Your task to perform on an android device: Go to Android settings Image 0: 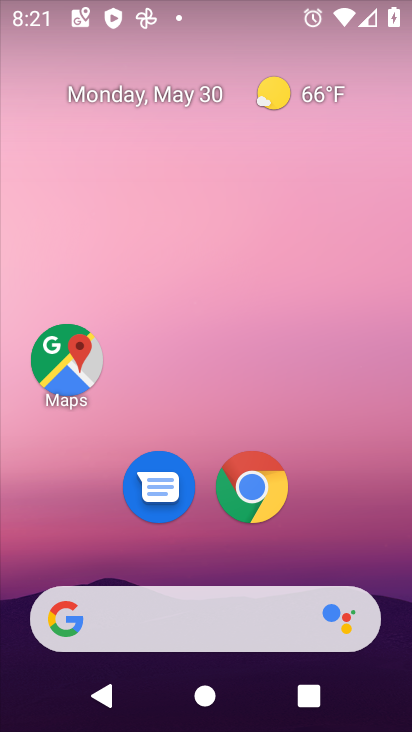
Step 0: press home button
Your task to perform on an android device: Go to Android settings Image 1: 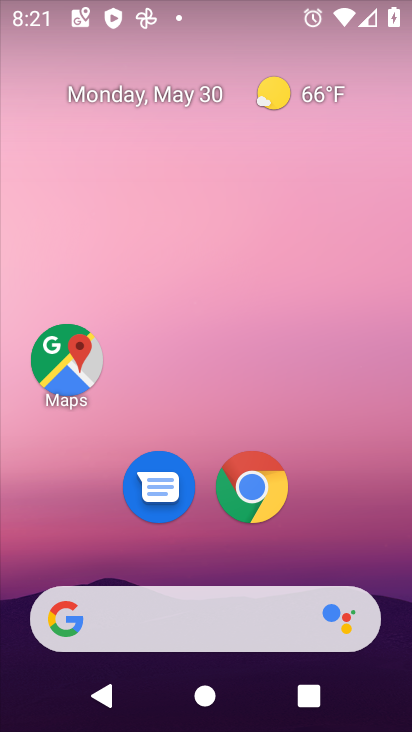
Step 1: drag from (346, 538) to (343, 0)
Your task to perform on an android device: Go to Android settings Image 2: 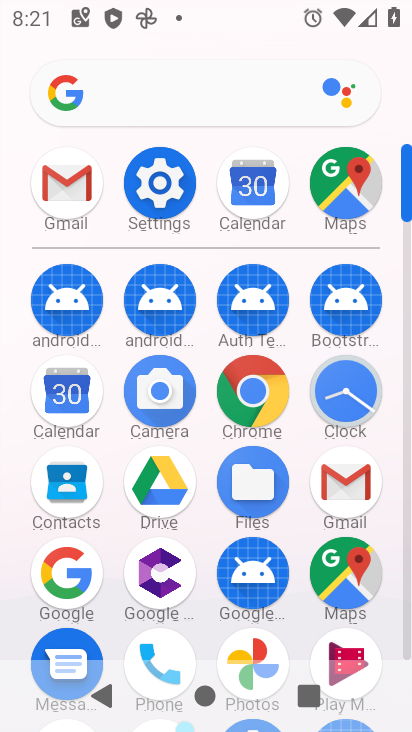
Step 2: click (163, 188)
Your task to perform on an android device: Go to Android settings Image 3: 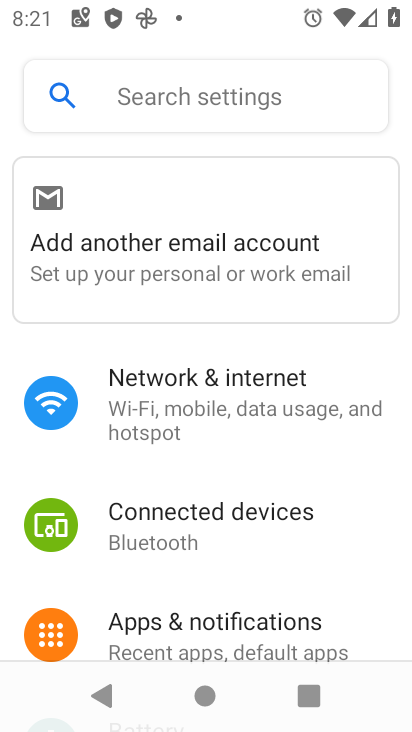
Step 3: task complete